Your task to perform on an android device: Open the web browser Image 0: 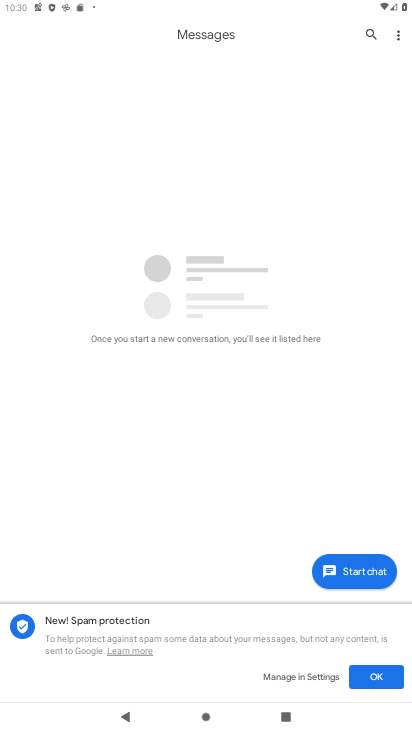
Step 0: press home button
Your task to perform on an android device: Open the web browser Image 1: 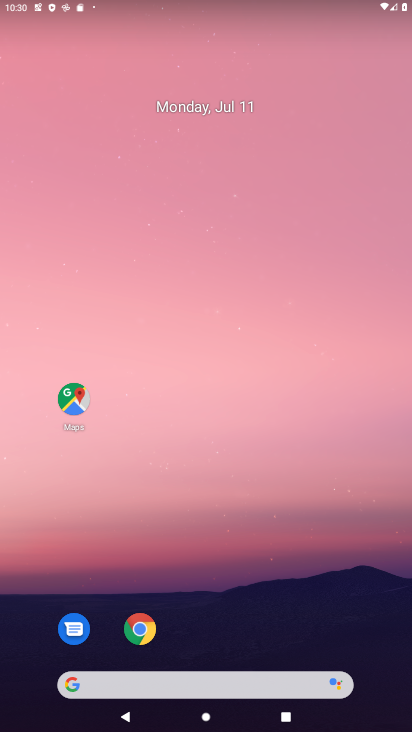
Step 1: click (136, 630)
Your task to perform on an android device: Open the web browser Image 2: 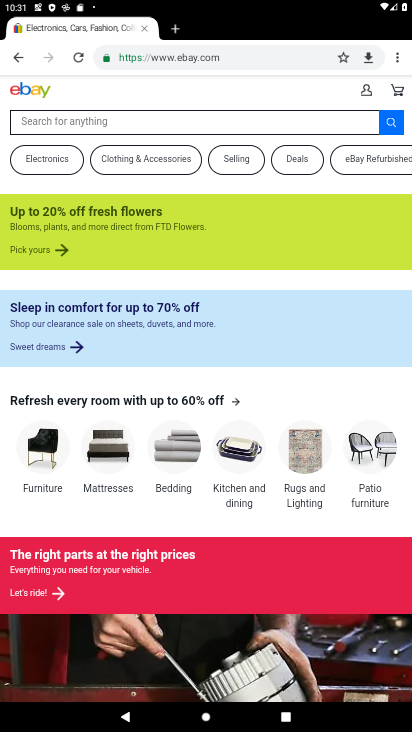
Step 2: task complete